Your task to perform on an android device: add a contact Image 0: 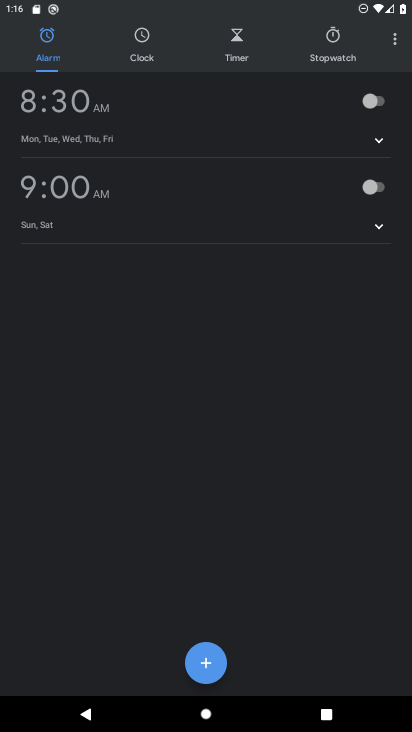
Step 0: press home button
Your task to perform on an android device: add a contact Image 1: 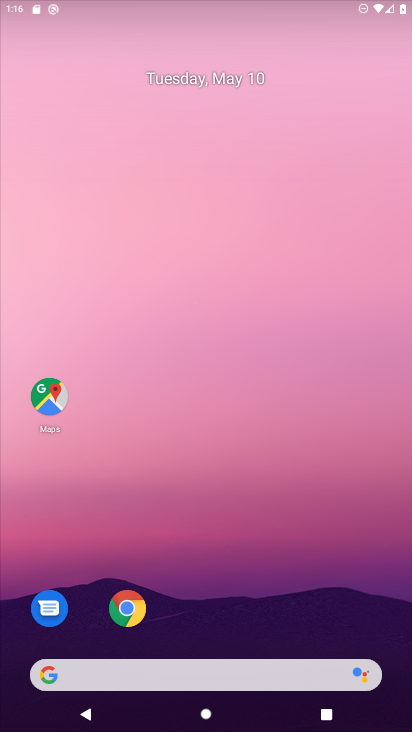
Step 1: drag from (328, 543) to (312, 256)
Your task to perform on an android device: add a contact Image 2: 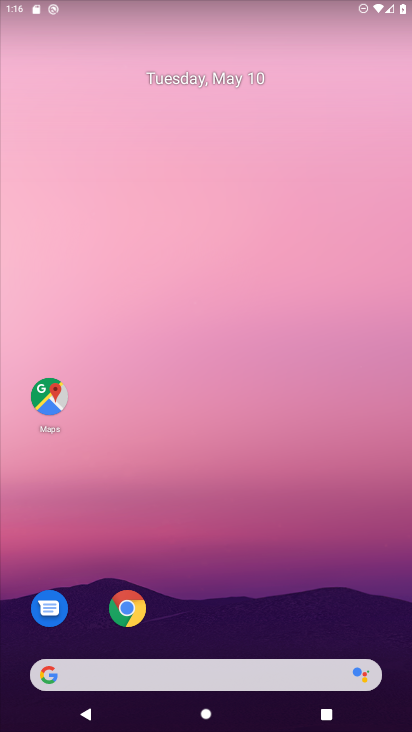
Step 2: drag from (276, 585) to (266, 175)
Your task to perform on an android device: add a contact Image 3: 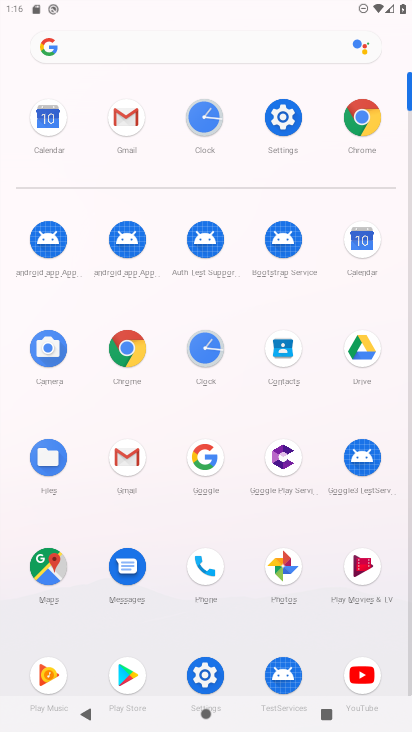
Step 3: click (282, 347)
Your task to perform on an android device: add a contact Image 4: 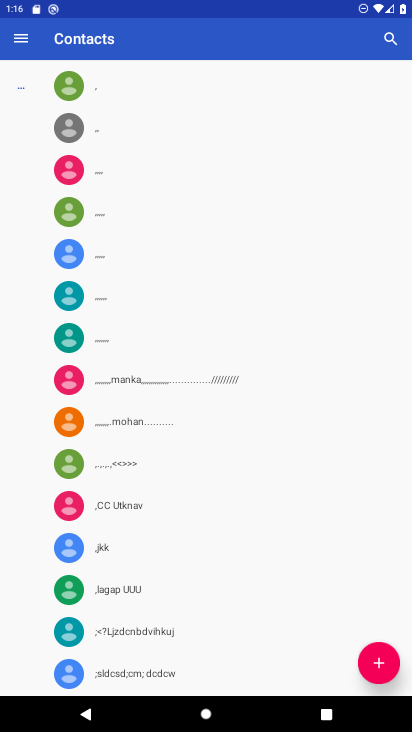
Step 4: click (374, 672)
Your task to perform on an android device: add a contact Image 5: 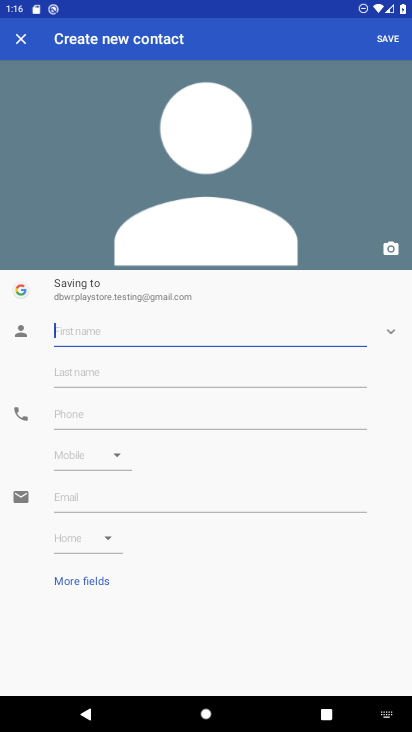
Step 5: click (196, 334)
Your task to perform on an android device: add a contact Image 6: 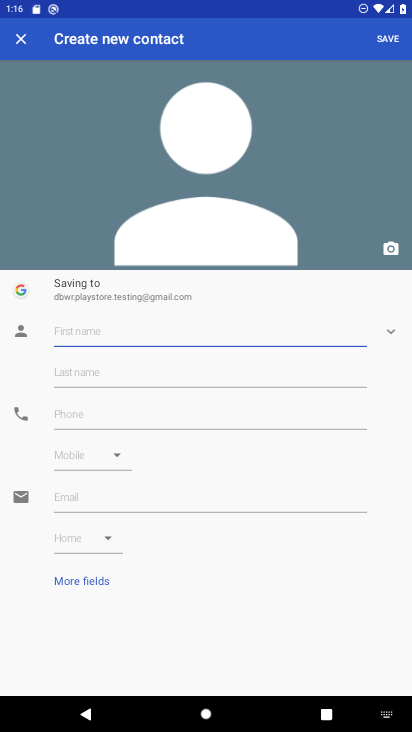
Step 6: type "neymar"
Your task to perform on an android device: add a contact Image 7: 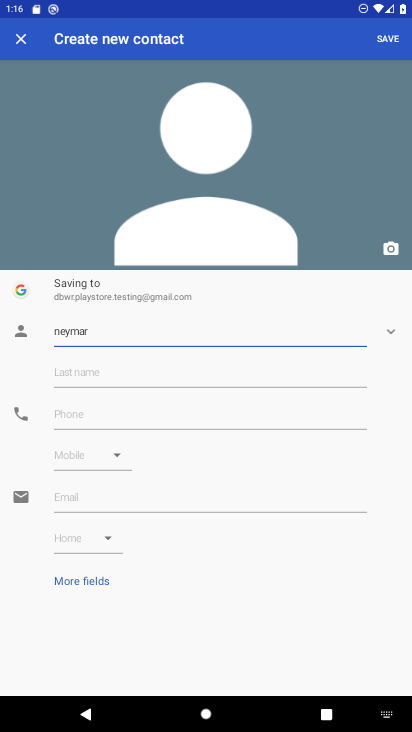
Step 7: click (109, 413)
Your task to perform on an android device: add a contact Image 8: 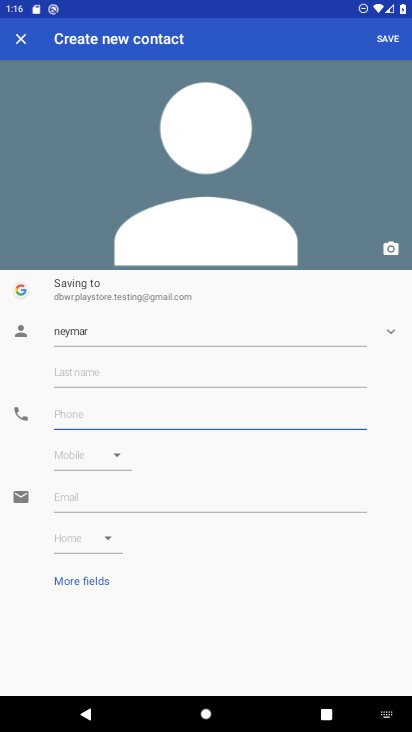
Step 8: type "88786564465"
Your task to perform on an android device: add a contact Image 9: 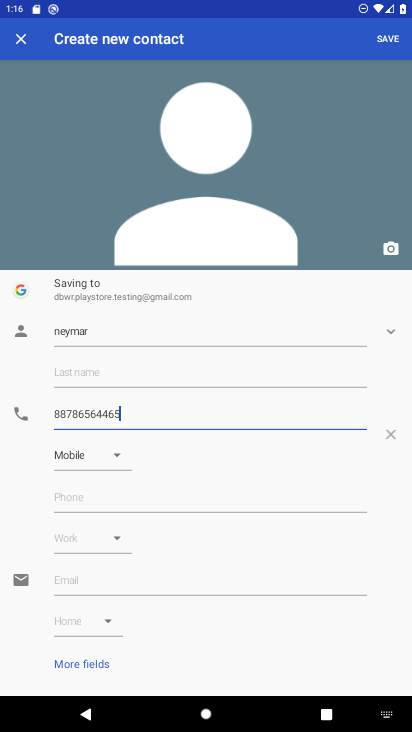
Step 9: click (393, 42)
Your task to perform on an android device: add a contact Image 10: 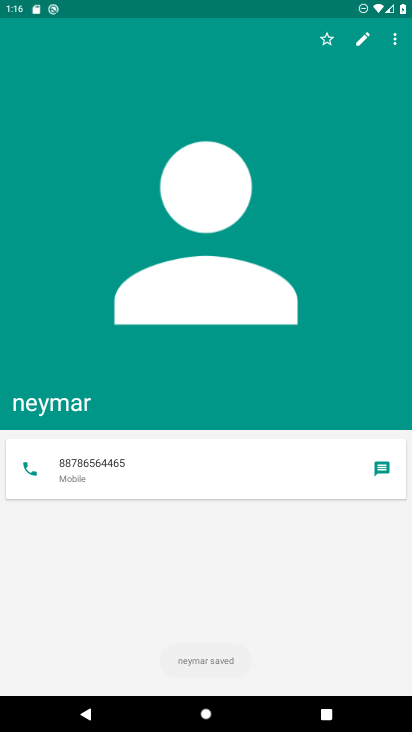
Step 10: task complete